Your task to perform on an android device: Search for pizza restaurants on Maps Image 0: 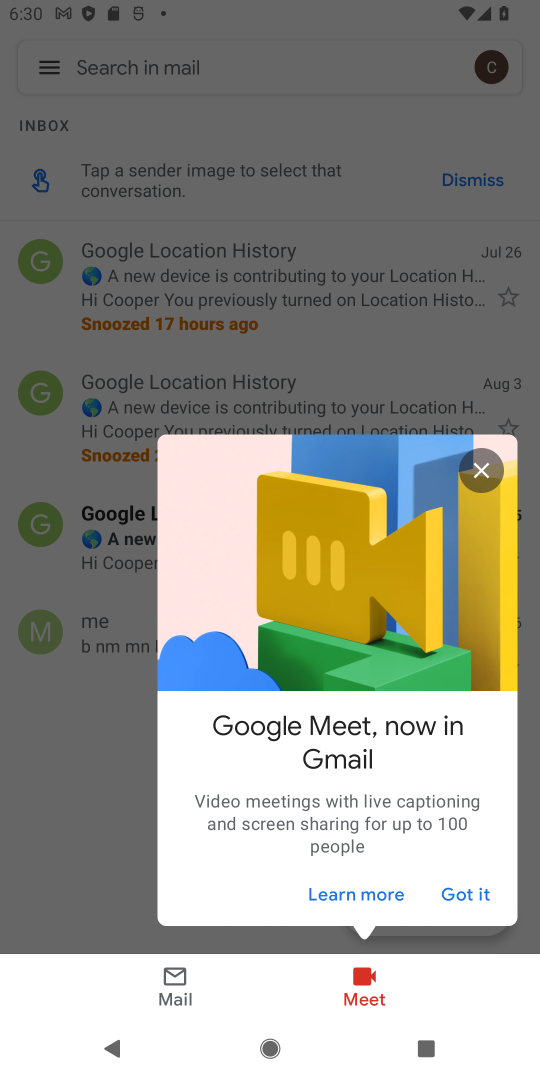
Step 0: press home button
Your task to perform on an android device: Search for pizza restaurants on Maps Image 1: 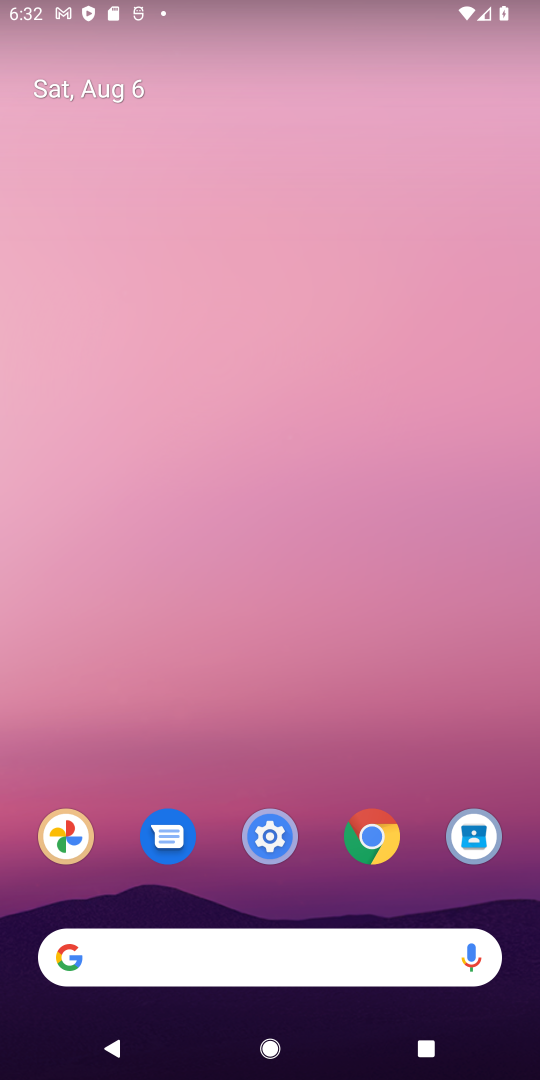
Step 1: drag from (445, 900) to (216, 50)
Your task to perform on an android device: Search for pizza restaurants on Maps Image 2: 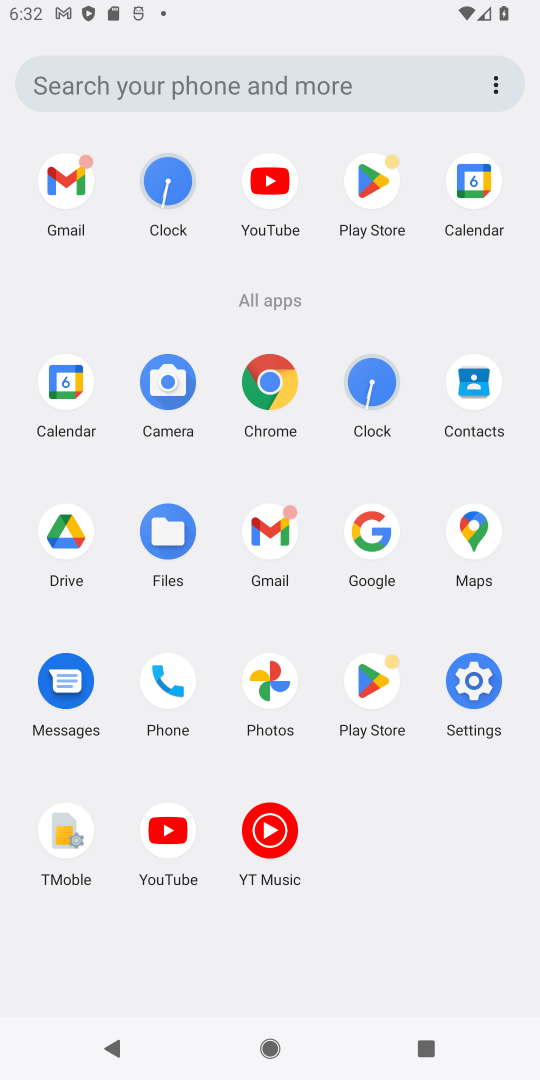
Step 2: click (476, 533)
Your task to perform on an android device: Search for pizza restaurants on Maps Image 3: 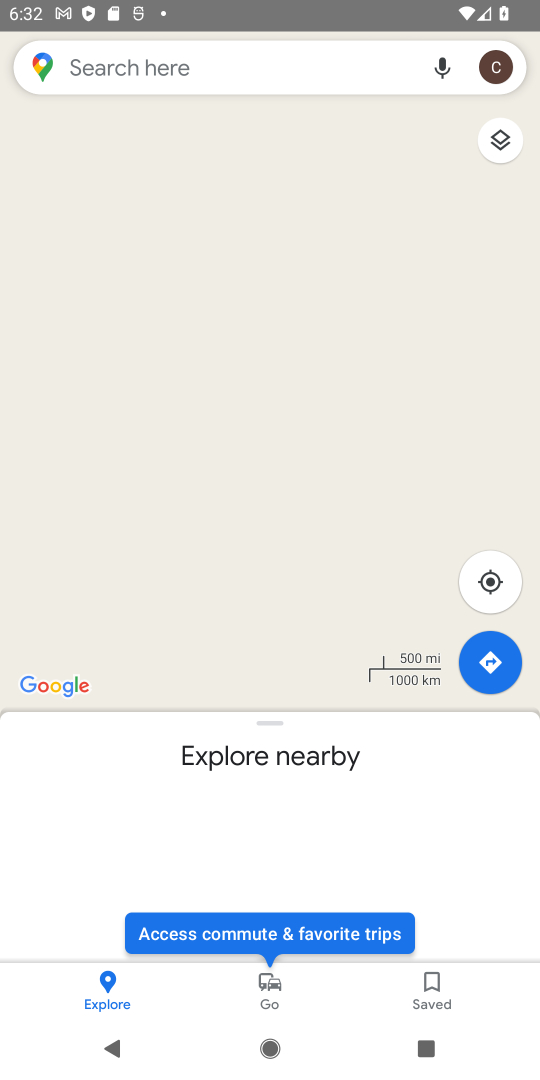
Step 3: click (134, 78)
Your task to perform on an android device: Search for pizza restaurants on Maps Image 4: 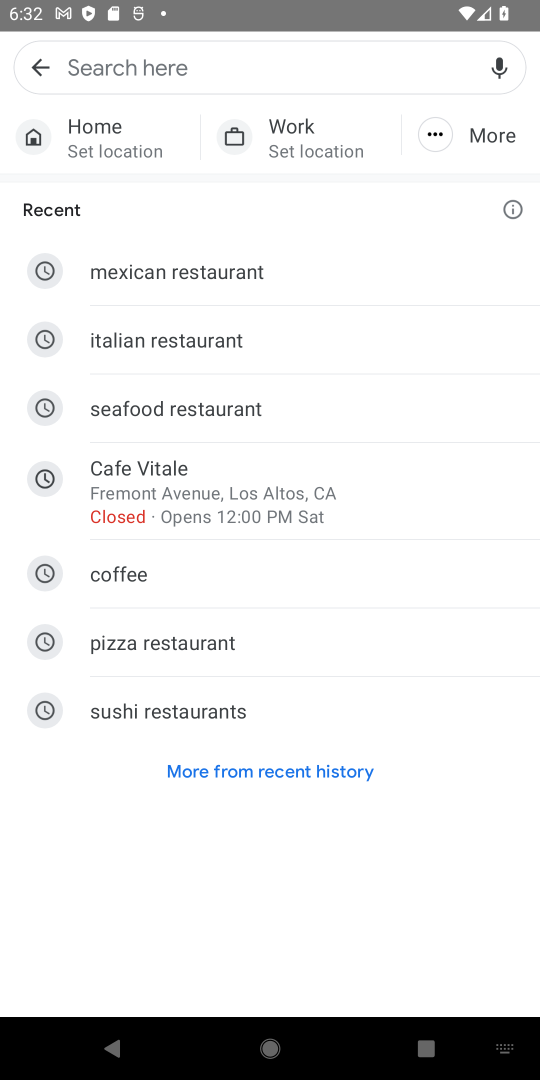
Step 4: click (180, 643)
Your task to perform on an android device: Search for pizza restaurants on Maps Image 5: 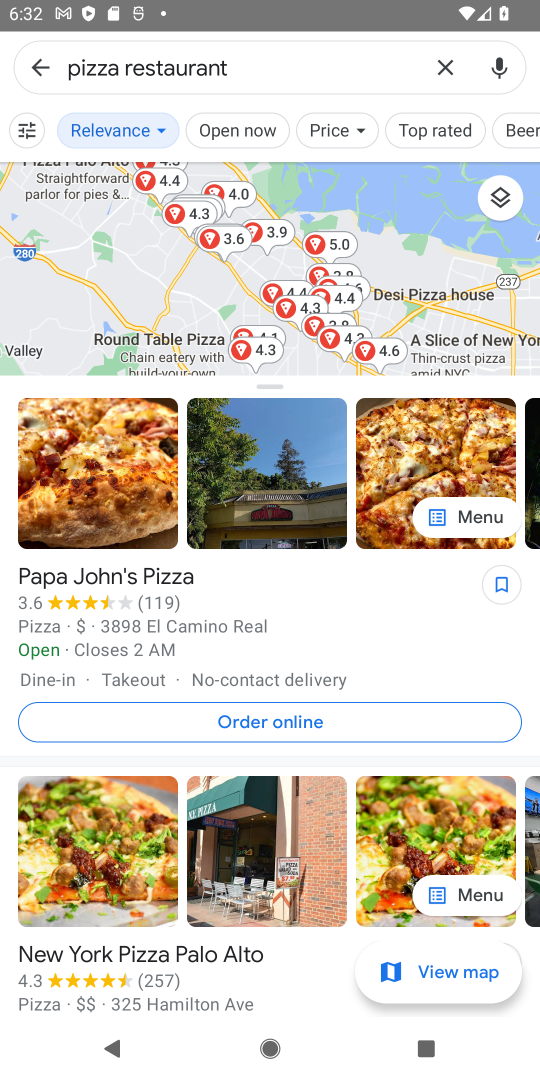
Step 5: task complete